Your task to perform on an android device: What is the capital of England? Image 0: 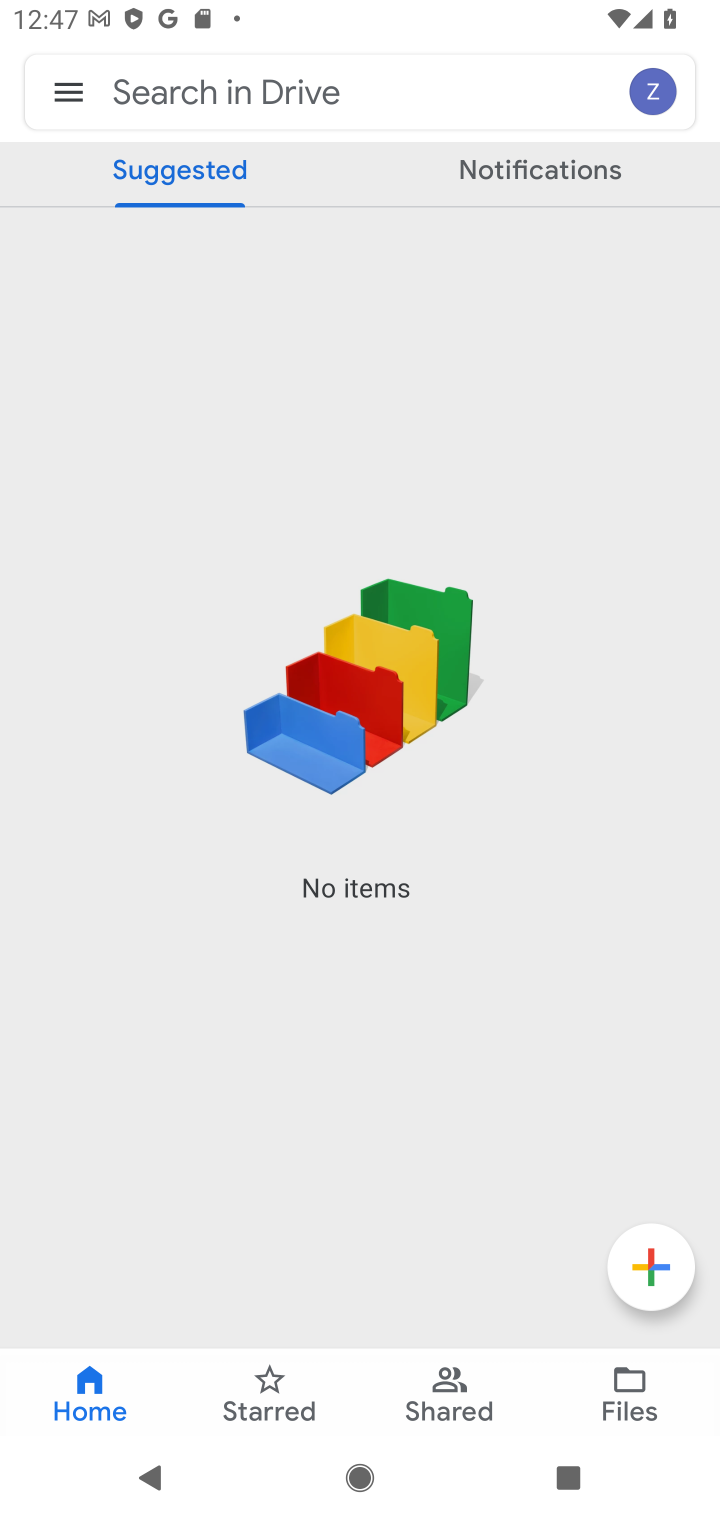
Step 0: press home button
Your task to perform on an android device: What is the capital of England? Image 1: 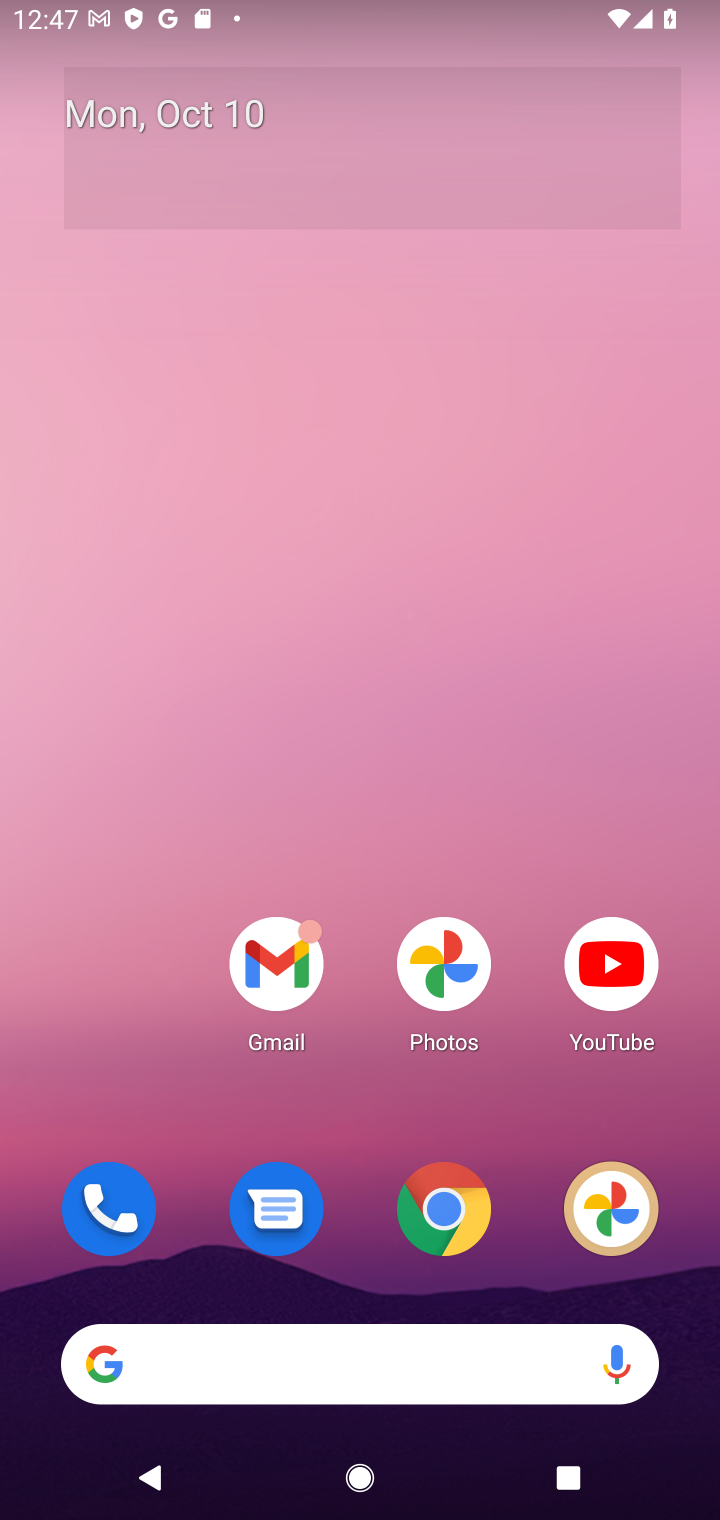
Step 1: drag from (376, 1258) to (364, 287)
Your task to perform on an android device: What is the capital of England? Image 2: 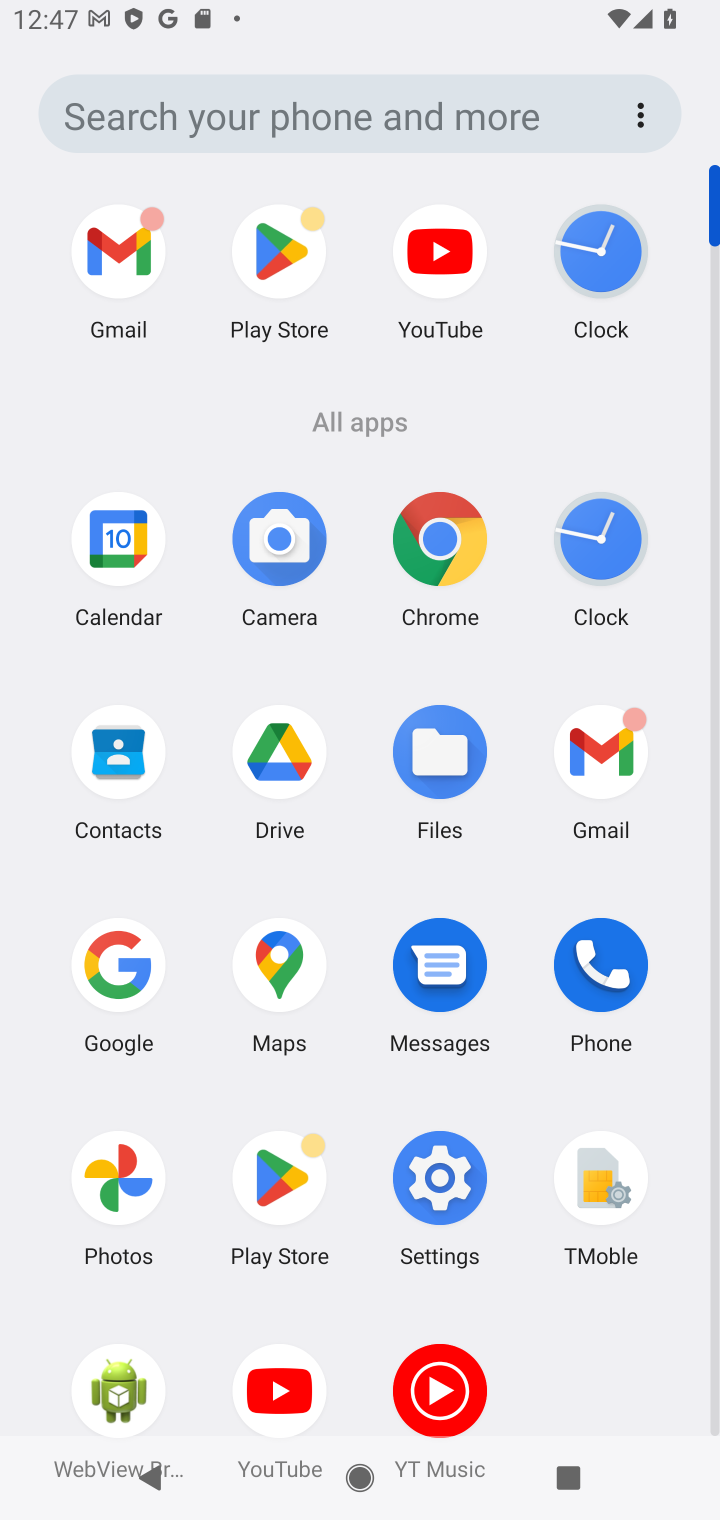
Step 2: click (120, 947)
Your task to perform on an android device: What is the capital of England? Image 3: 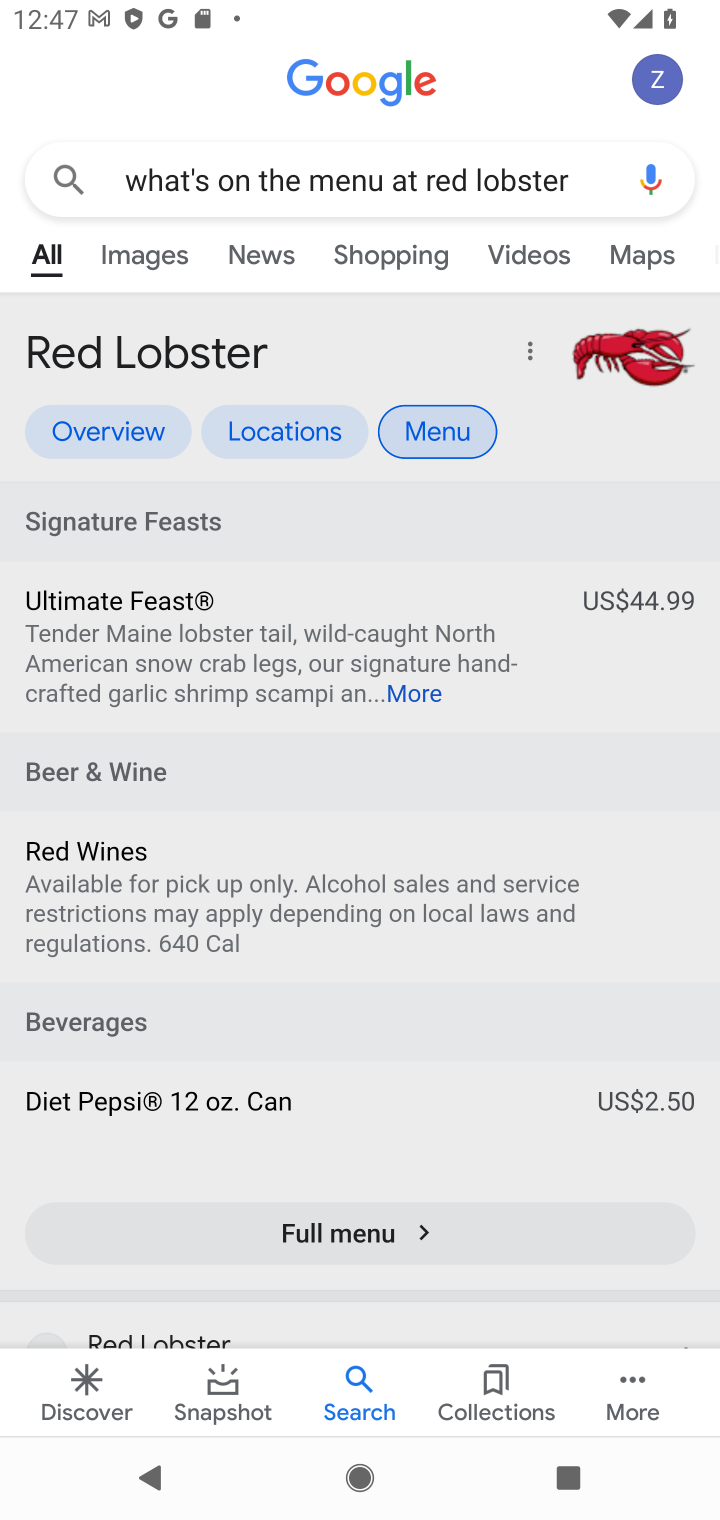
Step 3: click (399, 191)
Your task to perform on an android device: What is the capital of England? Image 4: 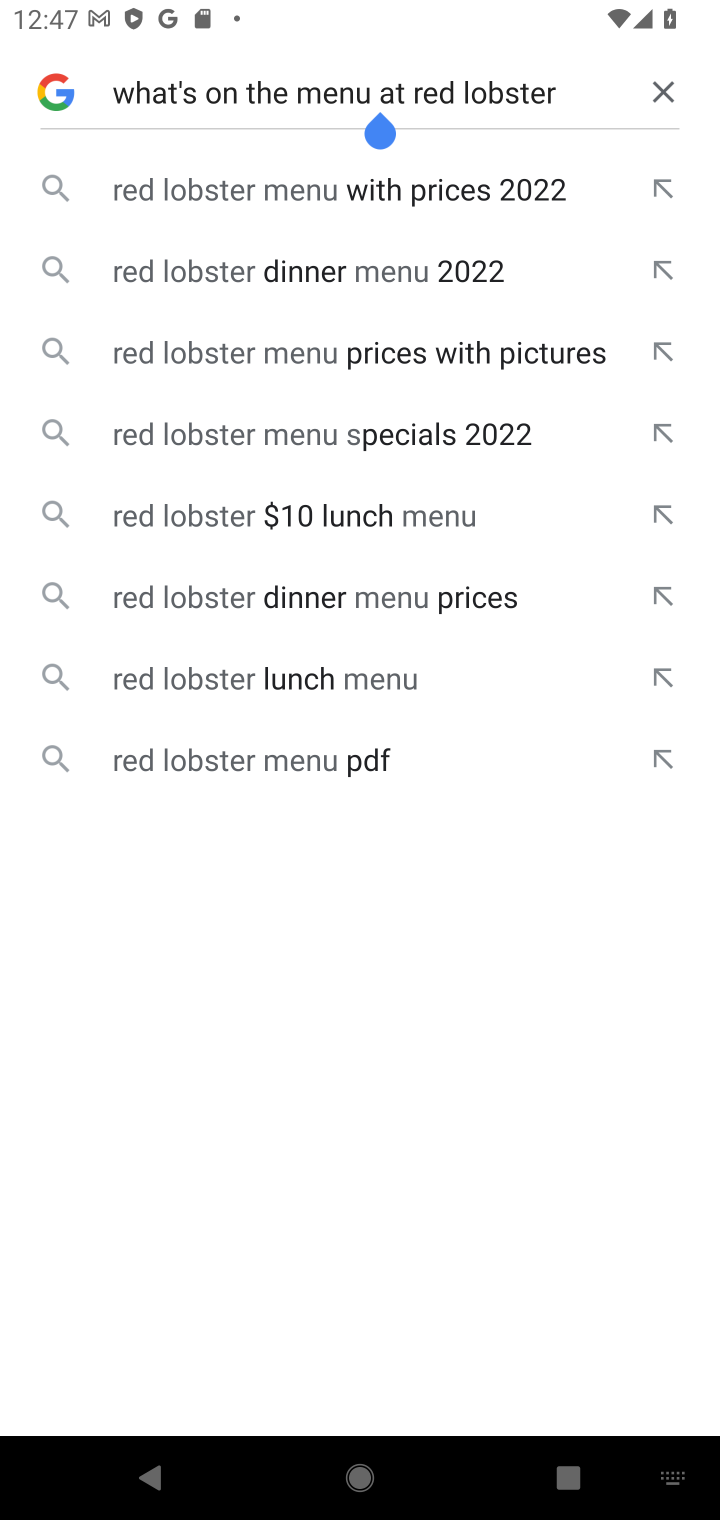
Step 4: click (663, 101)
Your task to perform on an android device: What is the capital of England? Image 5: 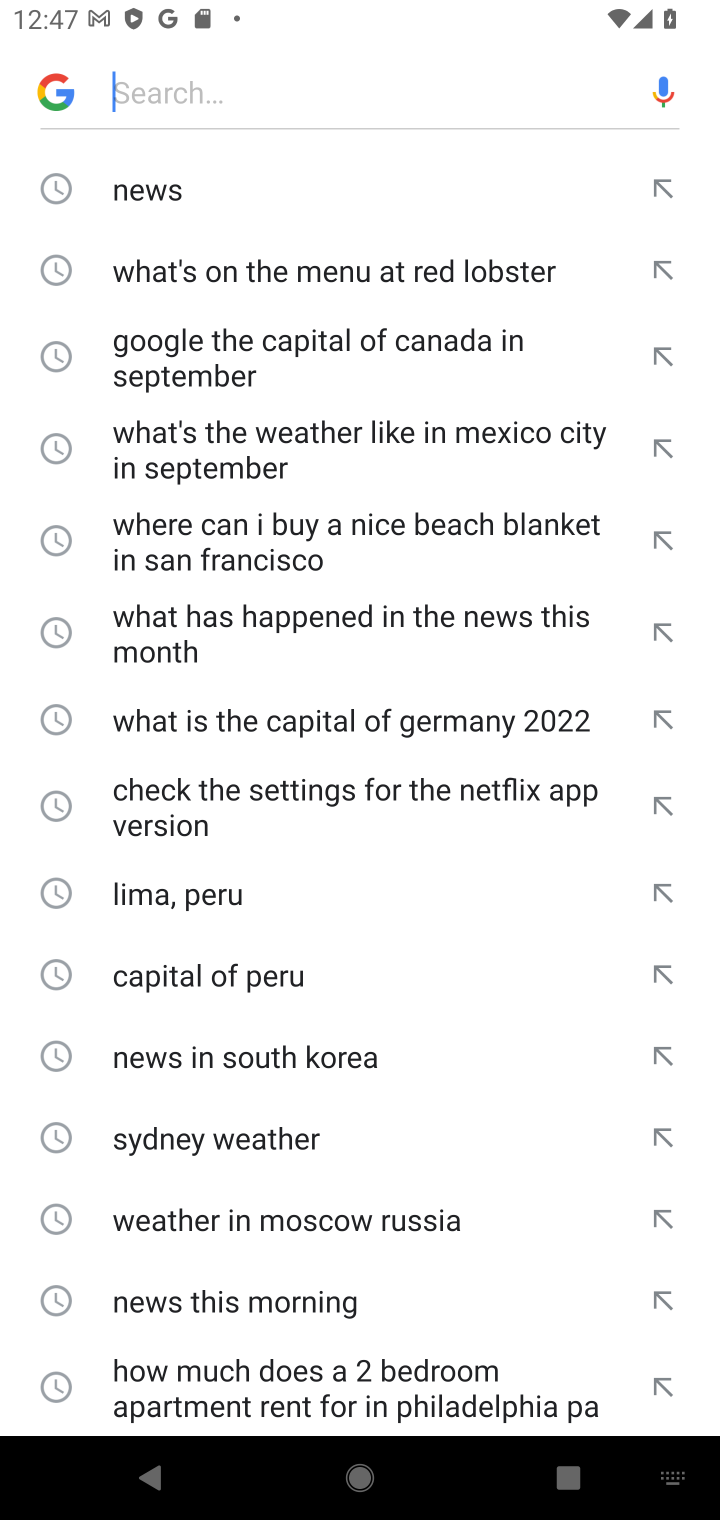
Step 5: type "What is the capital of England?"
Your task to perform on an android device: What is the capital of England? Image 6: 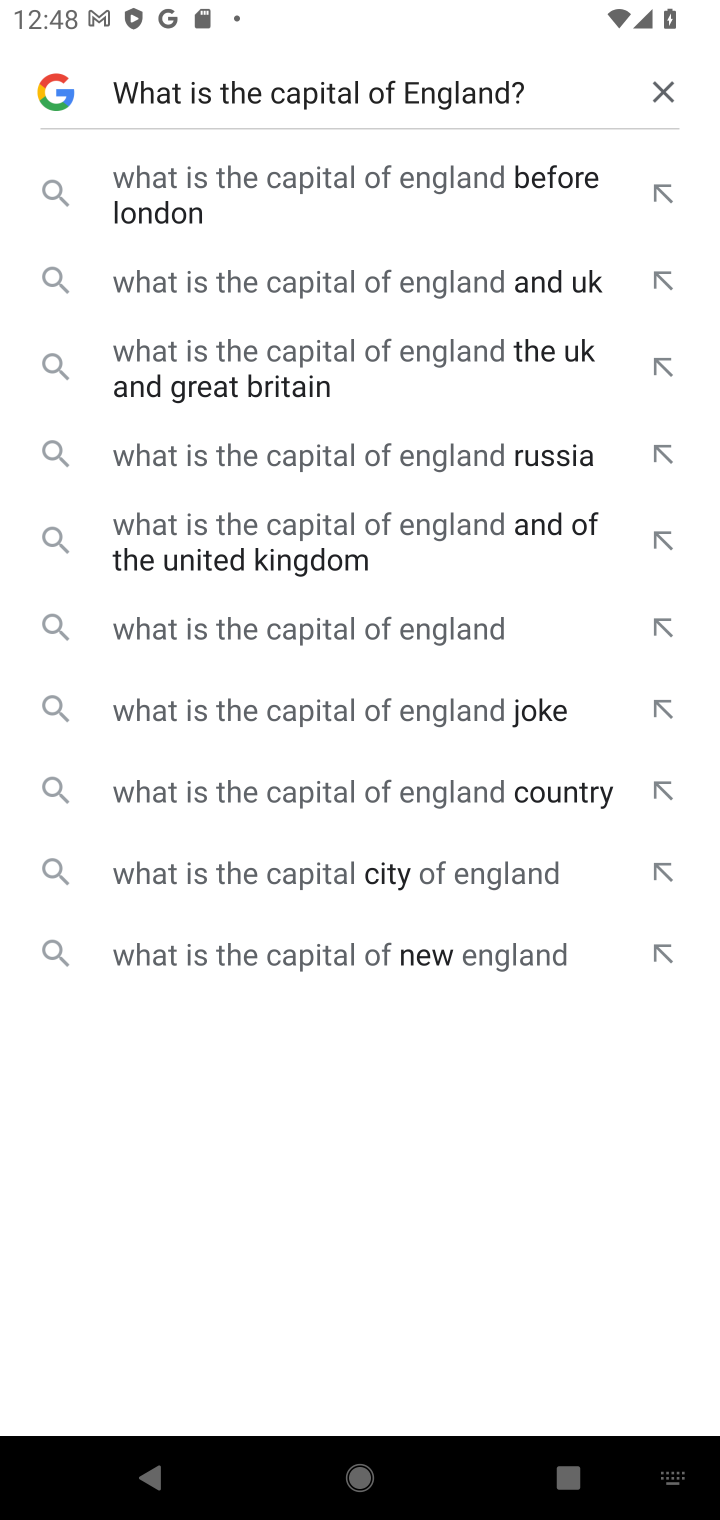
Step 6: click (268, 176)
Your task to perform on an android device: What is the capital of England? Image 7: 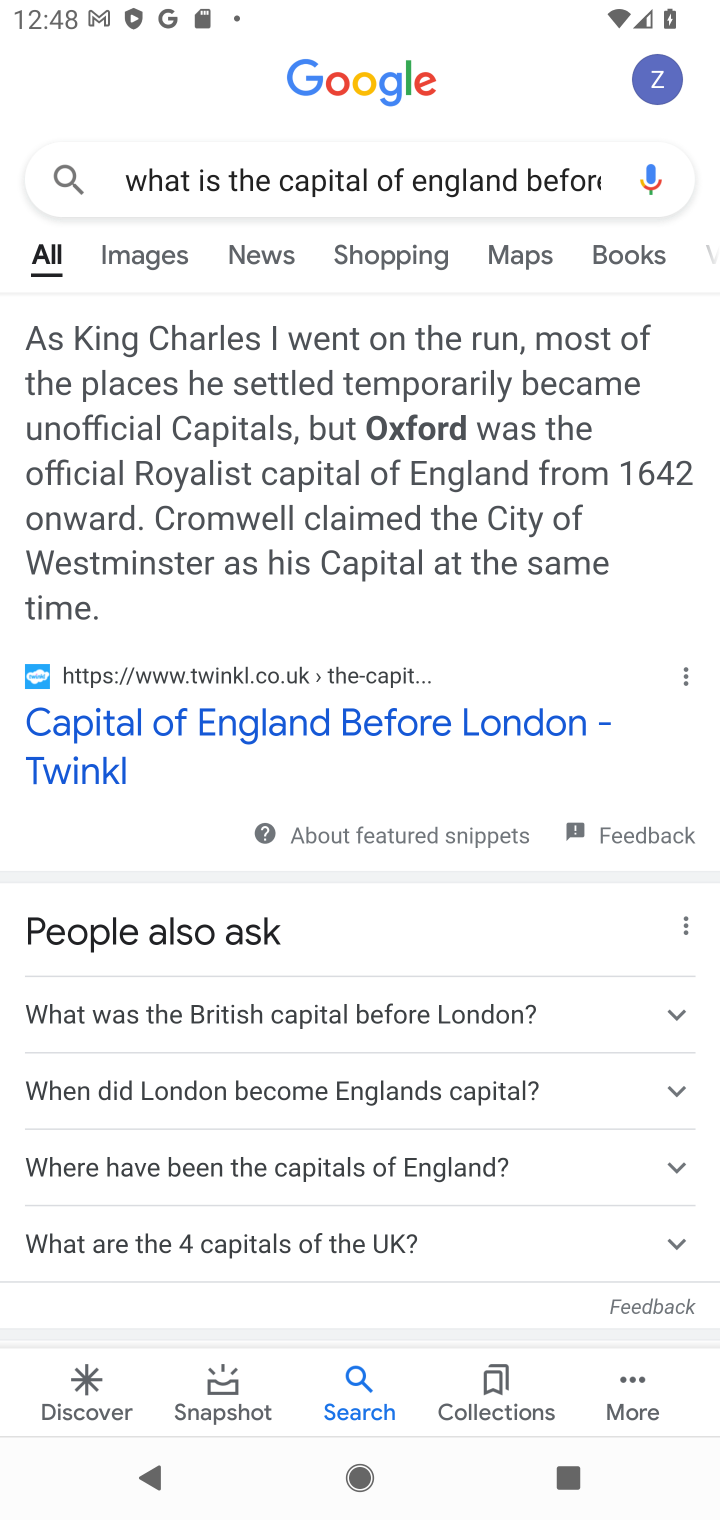
Step 7: task complete